Your task to perform on an android device: open app "Lyft - Rideshare, Bikes, Scooters & Transit" (install if not already installed) and go to login screen Image 0: 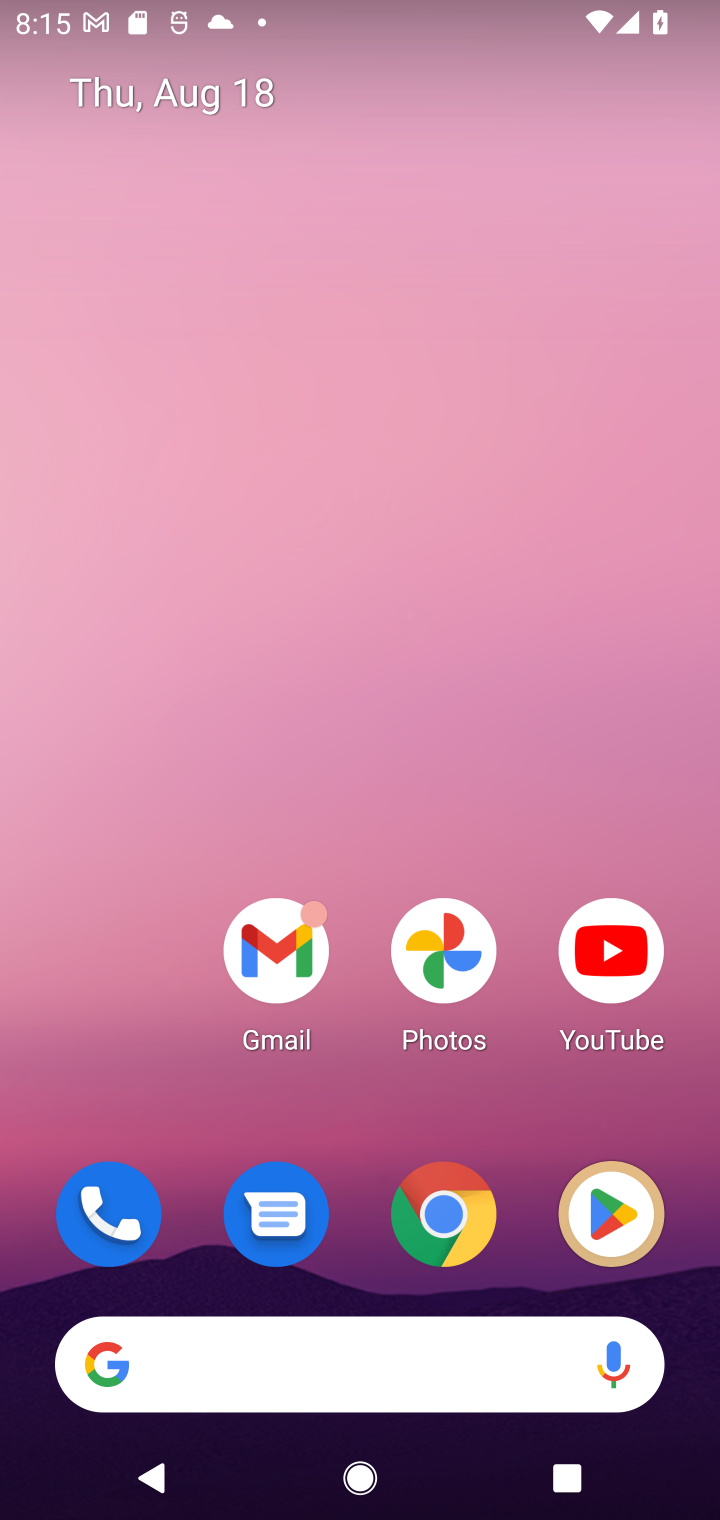
Step 0: click (602, 1225)
Your task to perform on an android device: open app "Lyft - Rideshare, Bikes, Scooters & Transit" (install if not already installed) and go to login screen Image 1: 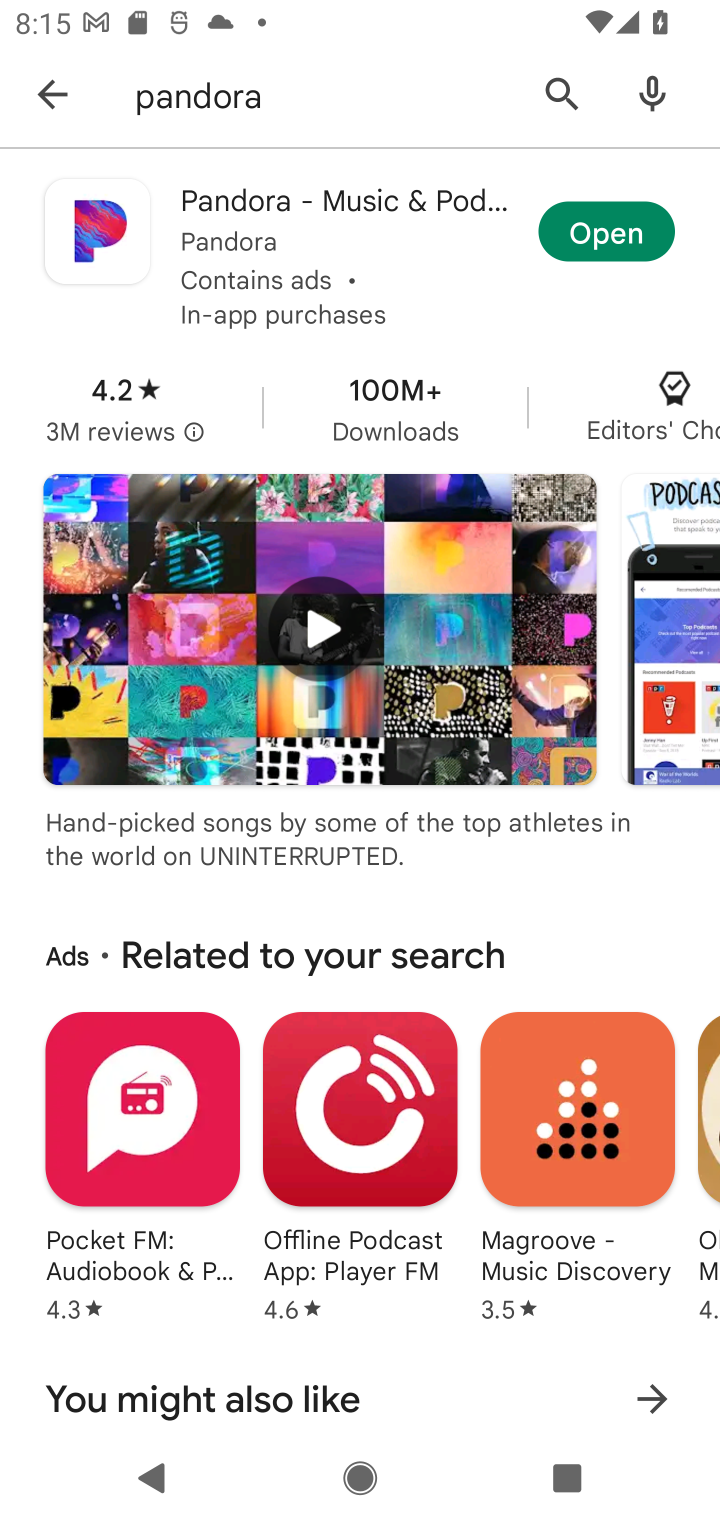
Step 1: click (553, 60)
Your task to perform on an android device: open app "Lyft - Rideshare, Bikes, Scooters & Transit" (install if not already installed) and go to login screen Image 2: 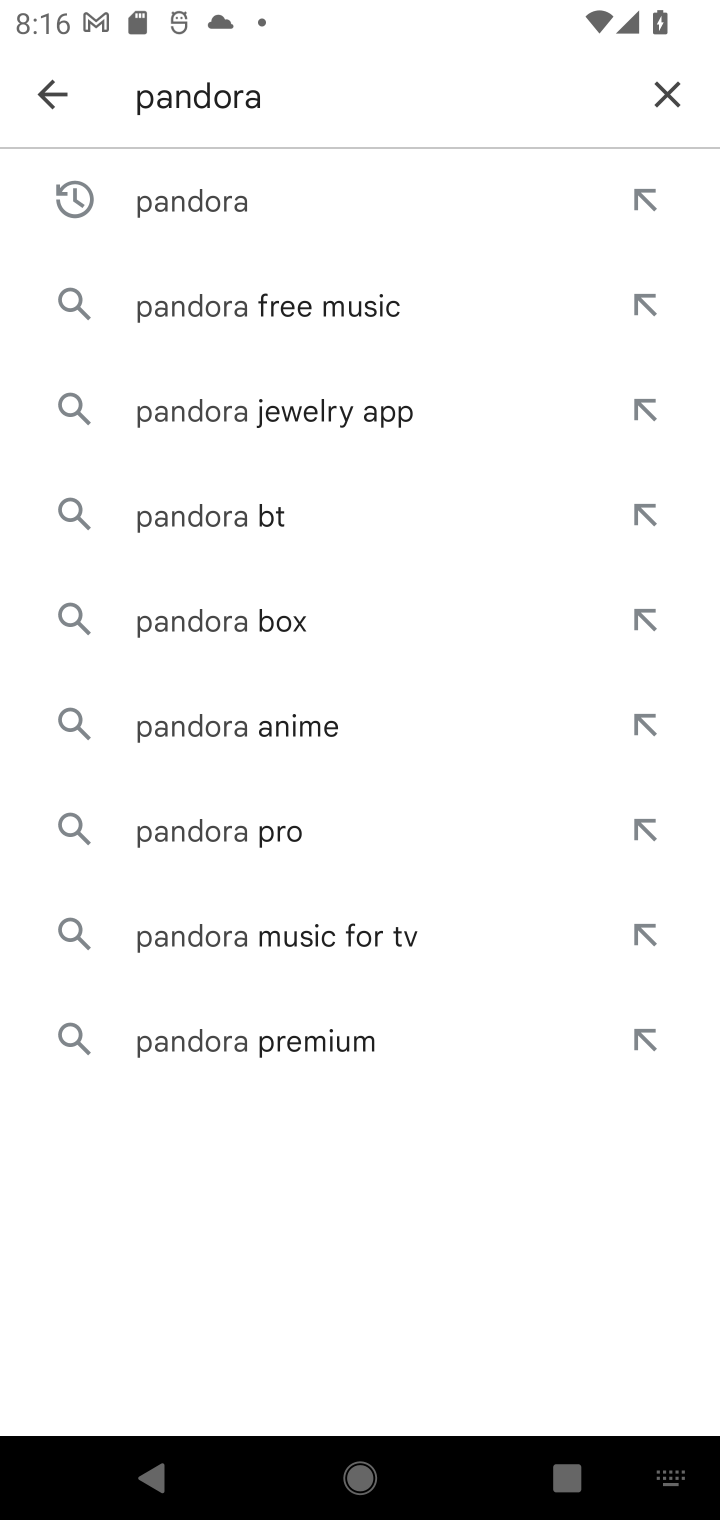
Step 2: click (668, 88)
Your task to perform on an android device: open app "Lyft - Rideshare, Bikes, Scooters & Transit" (install if not already installed) and go to login screen Image 3: 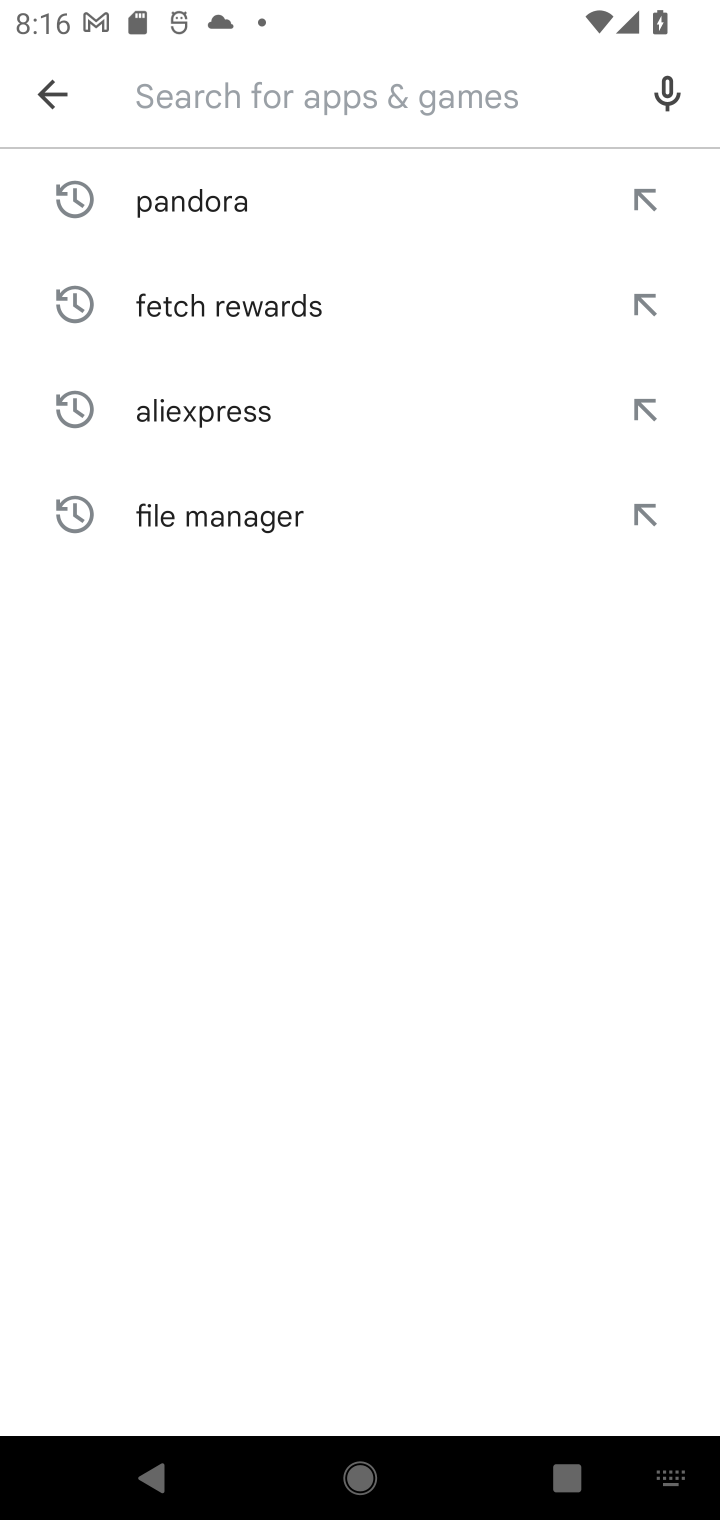
Step 3: click (294, 105)
Your task to perform on an android device: open app "Lyft - Rideshare, Bikes, Scooters & Transit" (install if not already installed) and go to login screen Image 4: 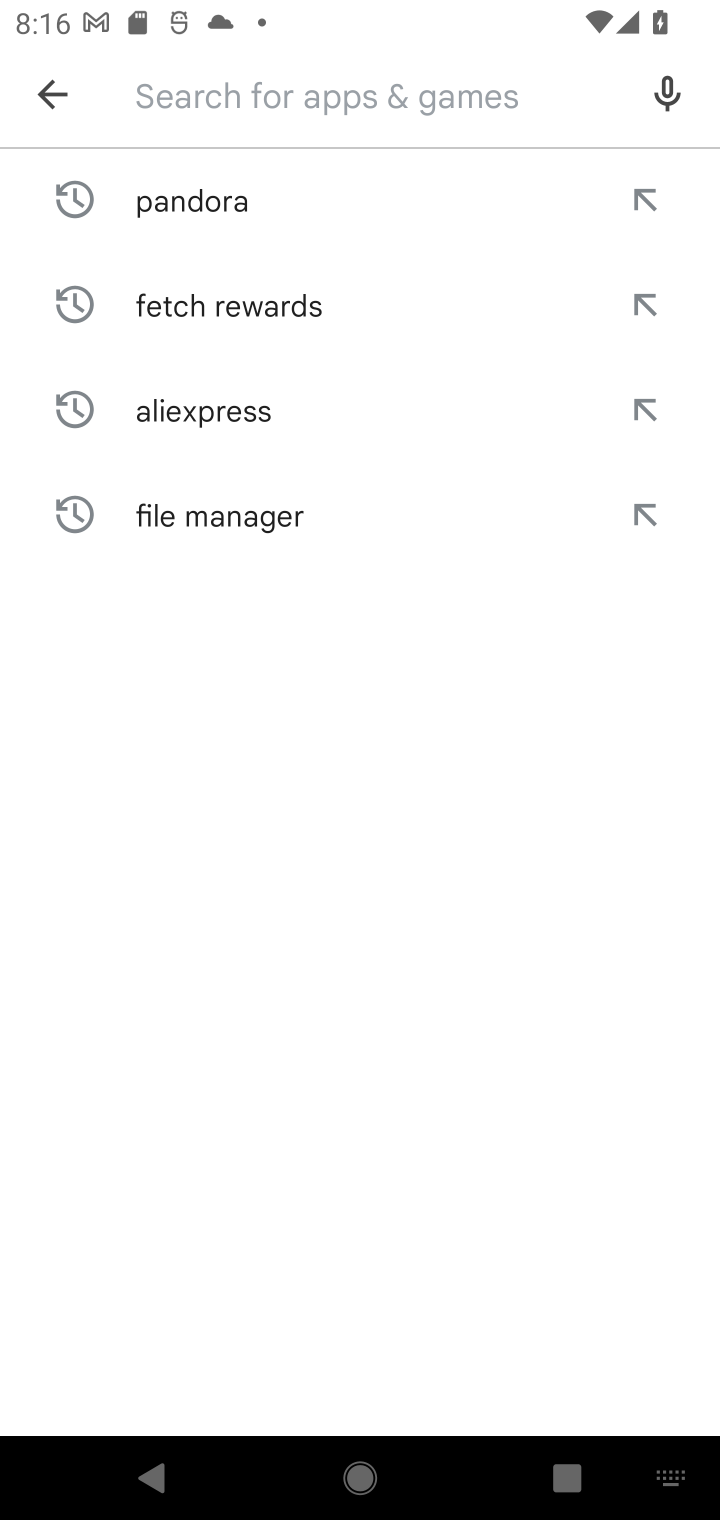
Step 4: type "lyft"
Your task to perform on an android device: open app "Lyft - Rideshare, Bikes, Scooters & Transit" (install if not already installed) and go to login screen Image 5: 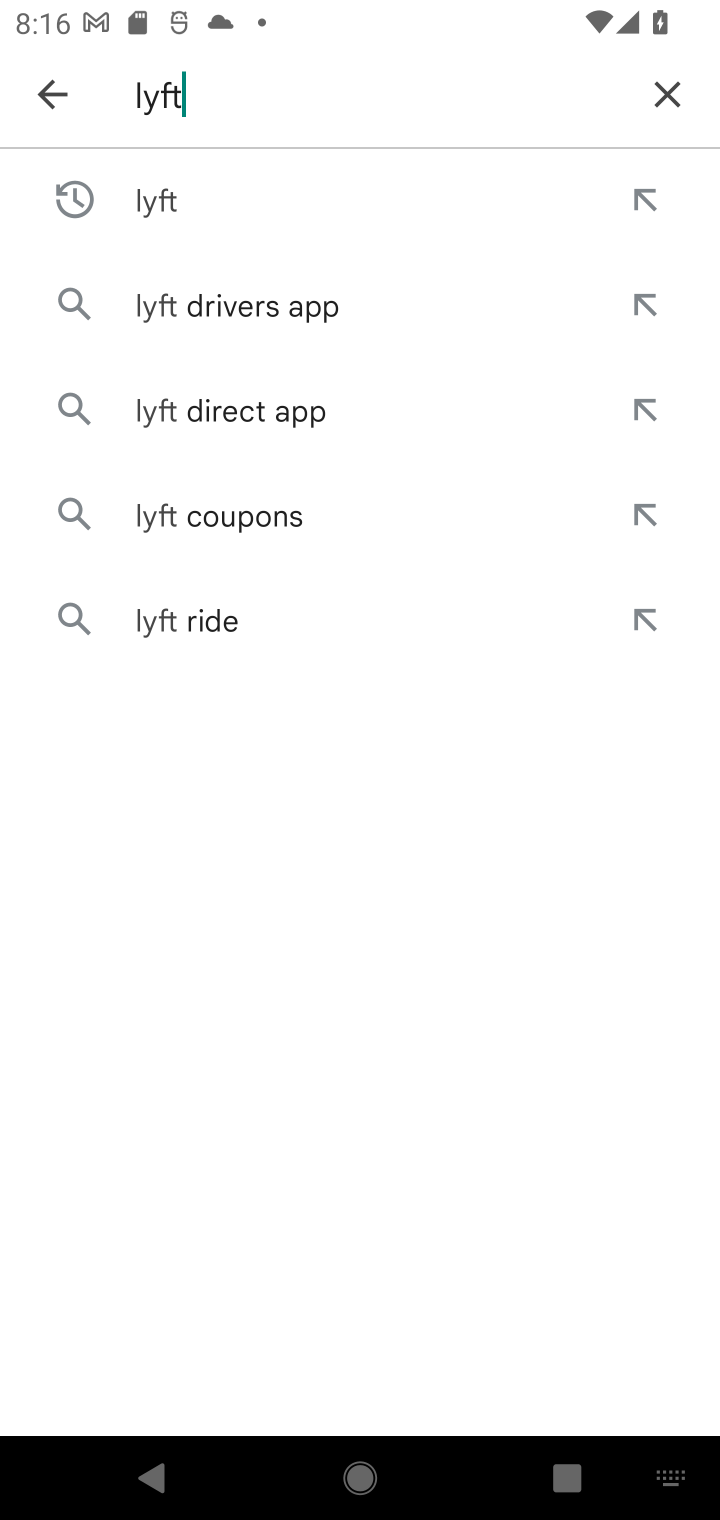
Step 5: click (286, 189)
Your task to perform on an android device: open app "Lyft - Rideshare, Bikes, Scooters & Transit" (install if not already installed) and go to login screen Image 6: 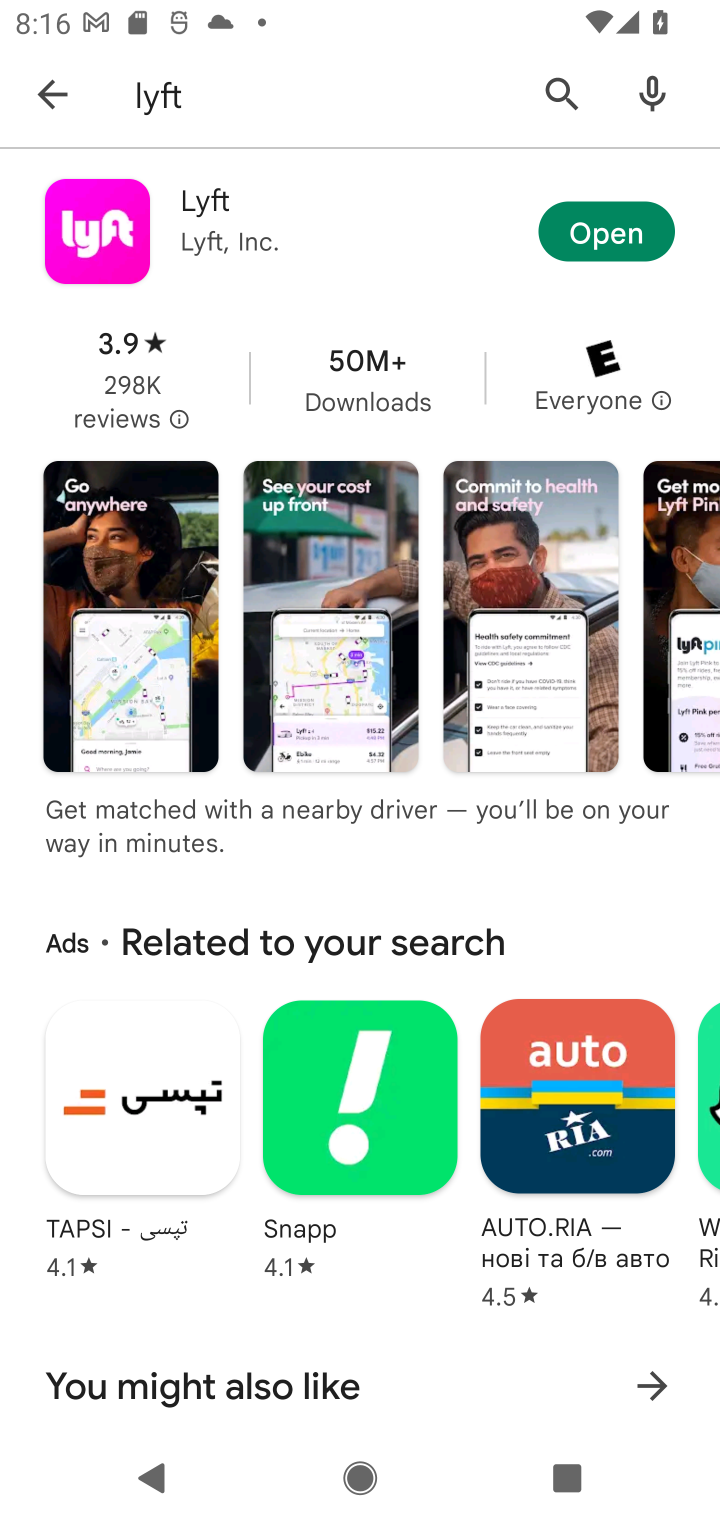
Step 6: click (600, 245)
Your task to perform on an android device: open app "Lyft - Rideshare, Bikes, Scooters & Transit" (install if not already installed) and go to login screen Image 7: 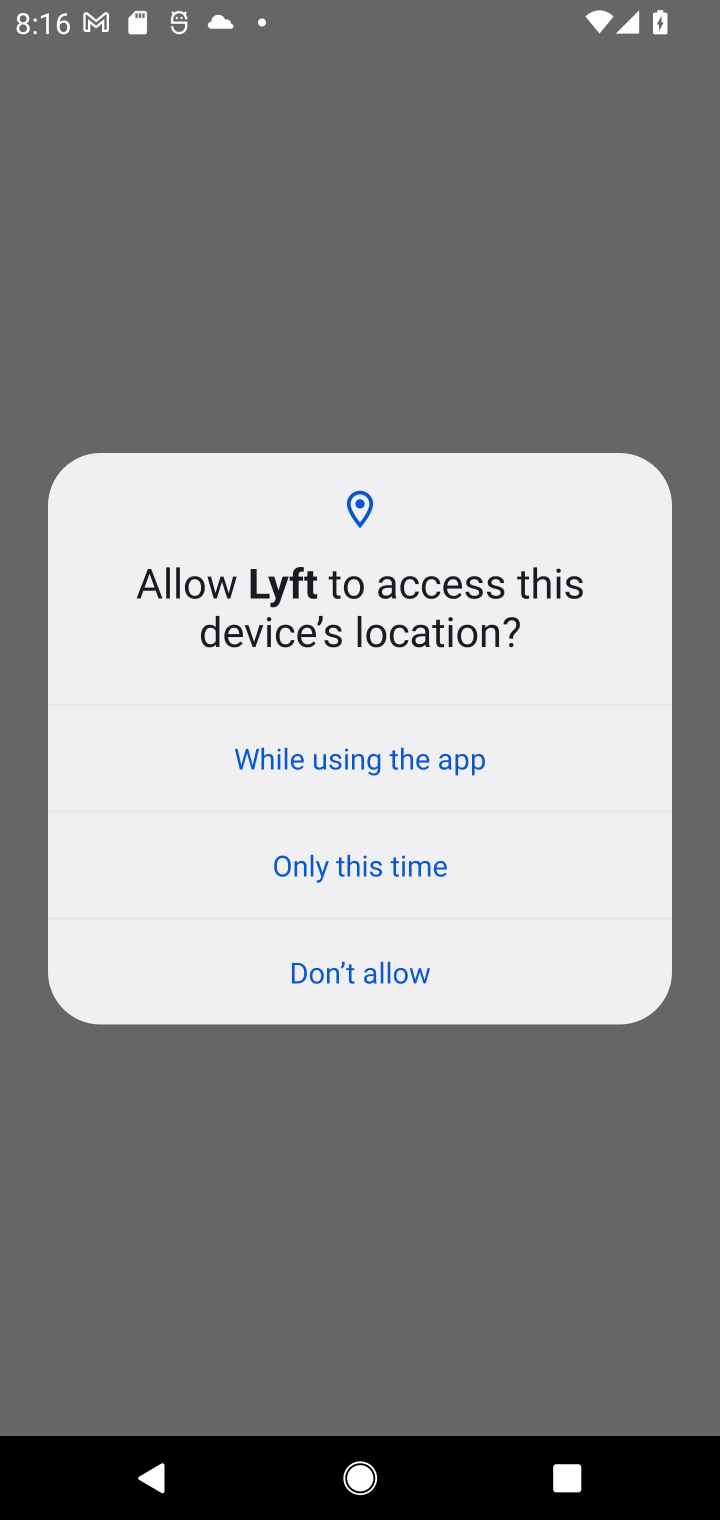
Step 7: task complete